Your task to perform on an android device: turn off sleep mode Image 0: 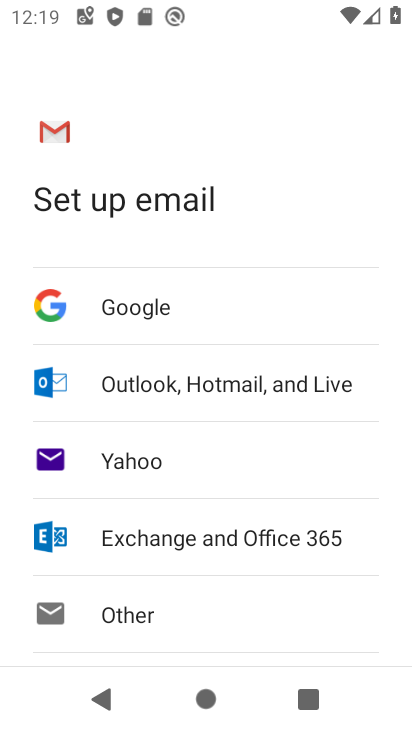
Step 0: press home button
Your task to perform on an android device: turn off sleep mode Image 1: 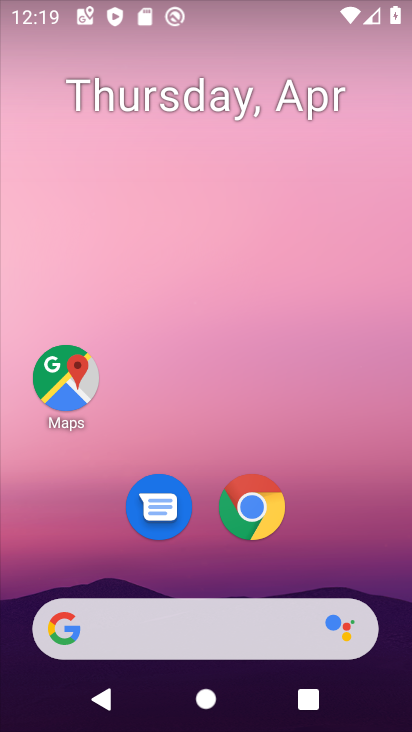
Step 1: drag from (210, 435) to (261, 0)
Your task to perform on an android device: turn off sleep mode Image 2: 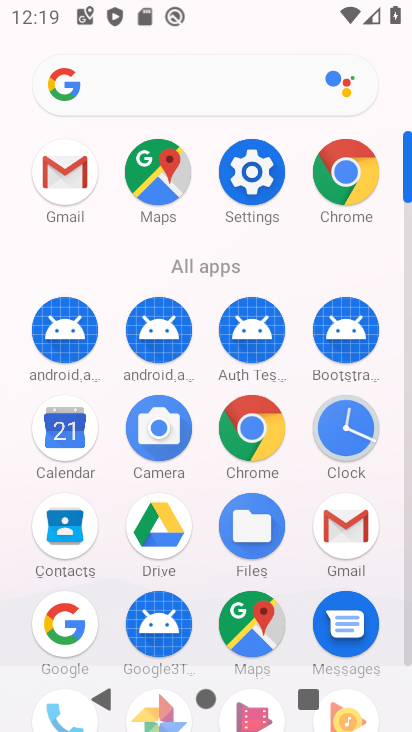
Step 2: click (248, 172)
Your task to perform on an android device: turn off sleep mode Image 3: 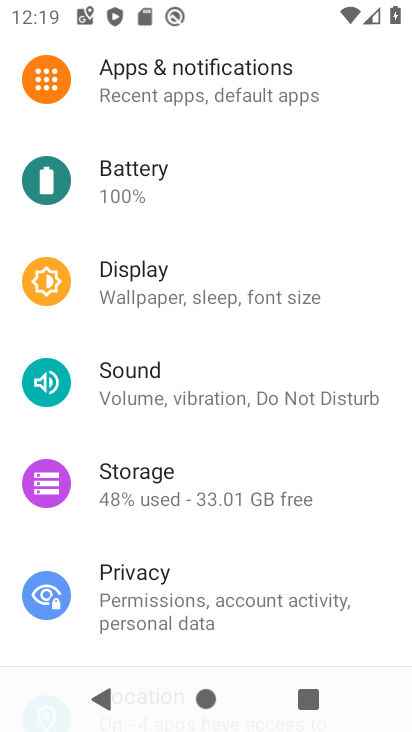
Step 3: click (253, 296)
Your task to perform on an android device: turn off sleep mode Image 4: 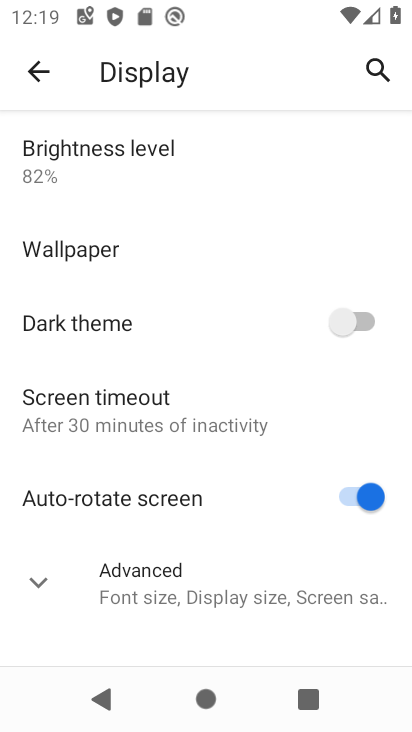
Step 4: click (185, 597)
Your task to perform on an android device: turn off sleep mode Image 5: 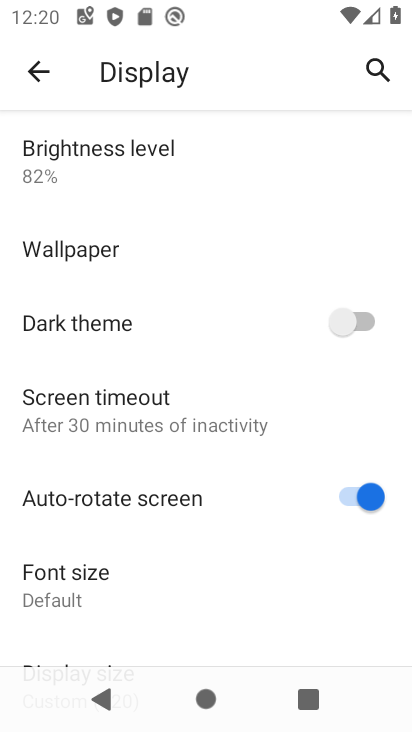
Step 5: task complete